Your task to perform on an android device: check the backup settings in the google photos Image 0: 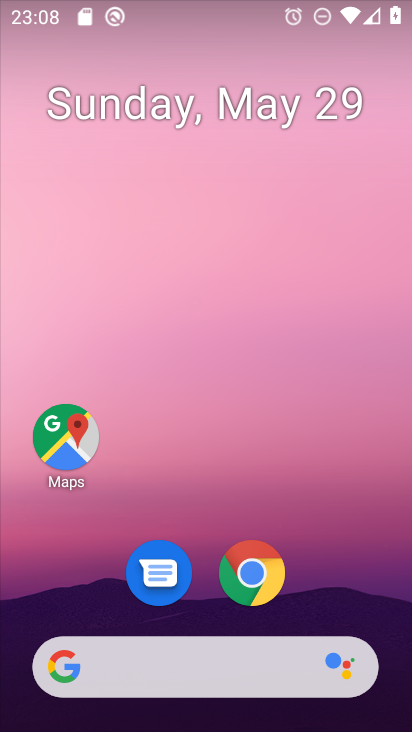
Step 0: drag from (270, 496) to (228, 0)
Your task to perform on an android device: check the backup settings in the google photos Image 1: 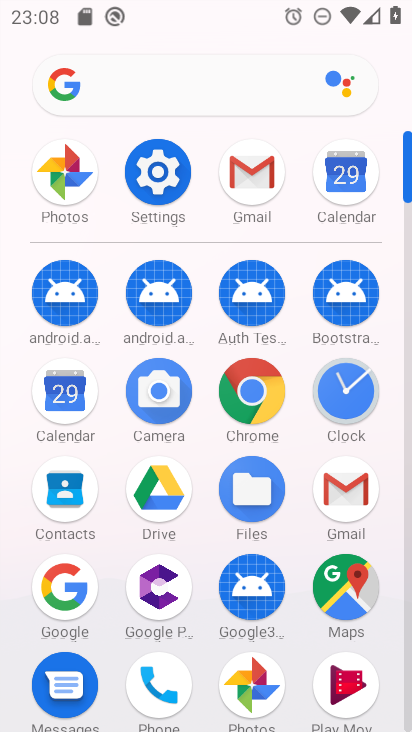
Step 1: click (75, 176)
Your task to perform on an android device: check the backup settings in the google photos Image 2: 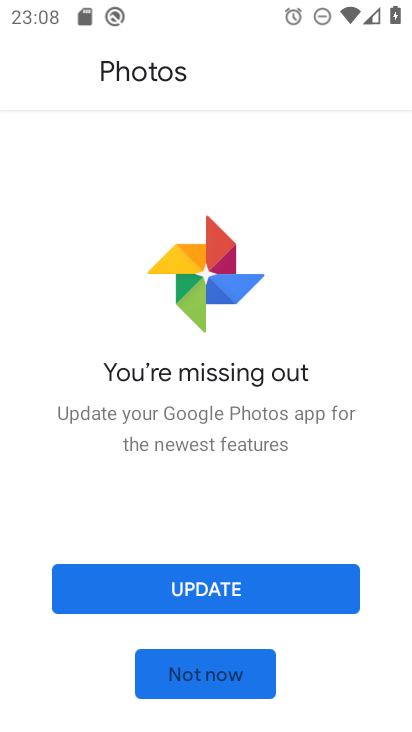
Step 2: click (201, 667)
Your task to perform on an android device: check the backup settings in the google photos Image 3: 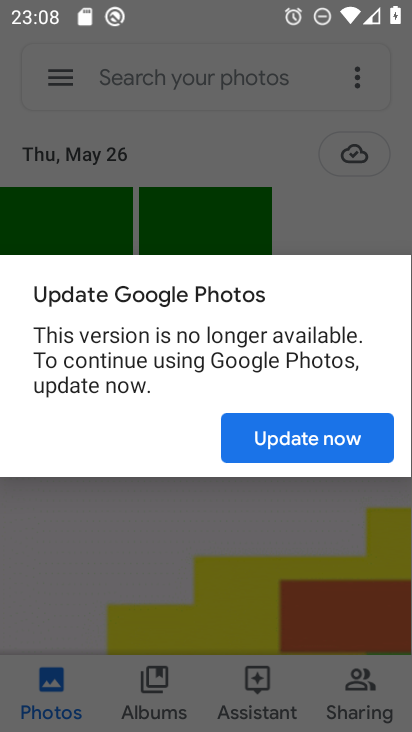
Step 3: click (321, 425)
Your task to perform on an android device: check the backup settings in the google photos Image 4: 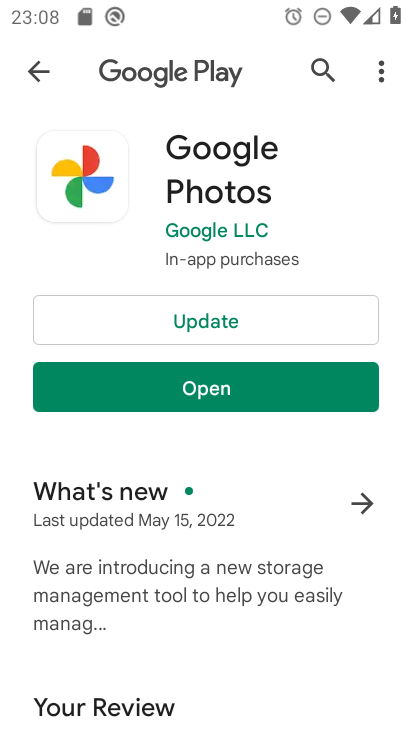
Step 4: click (172, 375)
Your task to perform on an android device: check the backup settings in the google photos Image 5: 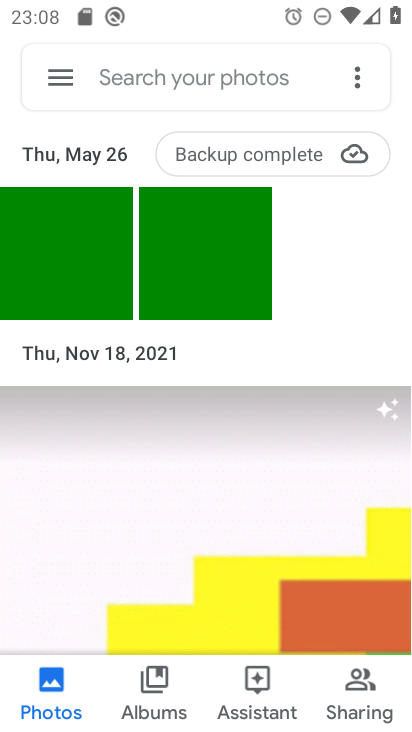
Step 5: click (49, 73)
Your task to perform on an android device: check the backup settings in the google photos Image 6: 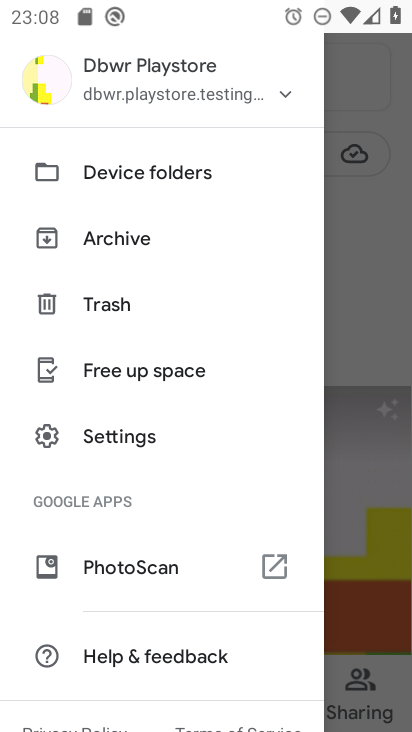
Step 6: click (133, 431)
Your task to perform on an android device: check the backup settings in the google photos Image 7: 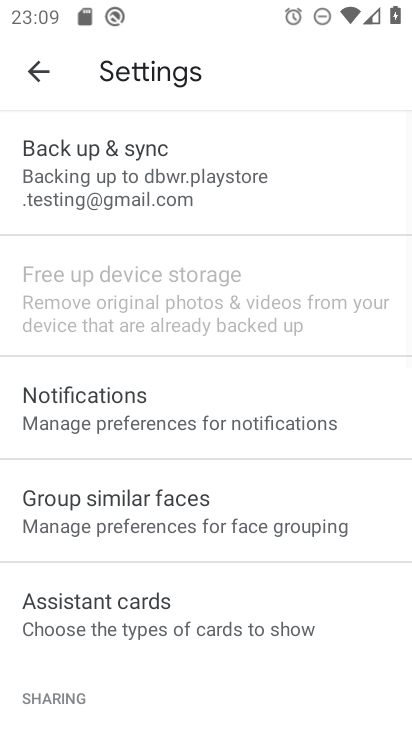
Step 7: click (139, 171)
Your task to perform on an android device: check the backup settings in the google photos Image 8: 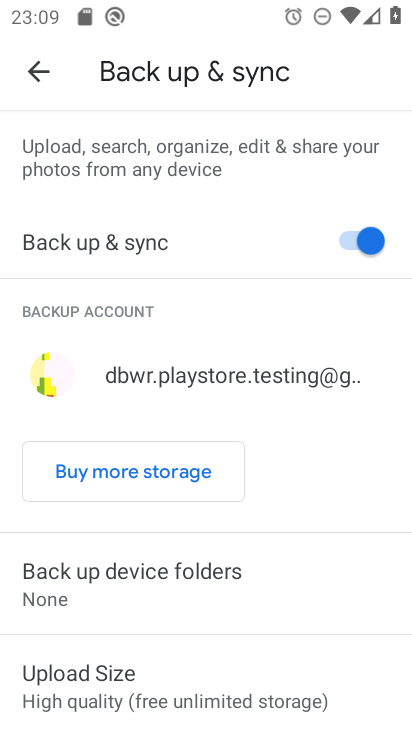
Step 8: task complete